Your task to perform on an android device: snooze an email in the gmail app Image 0: 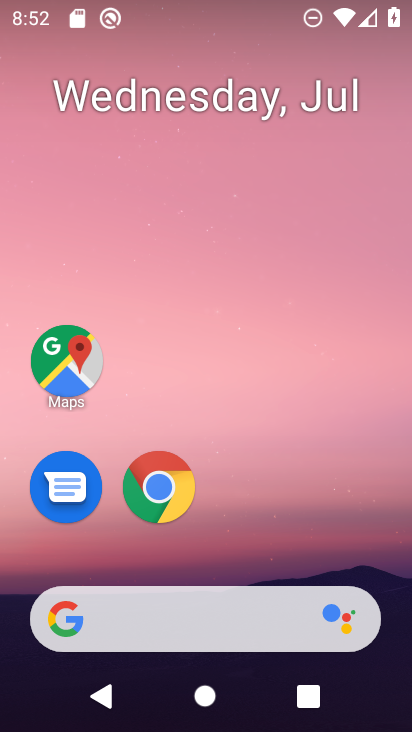
Step 0: drag from (326, 506) to (341, 83)
Your task to perform on an android device: snooze an email in the gmail app Image 1: 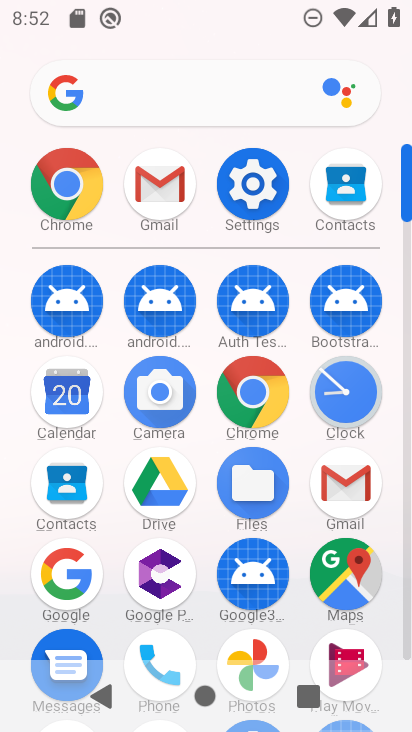
Step 1: click (348, 481)
Your task to perform on an android device: snooze an email in the gmail app Image 2: 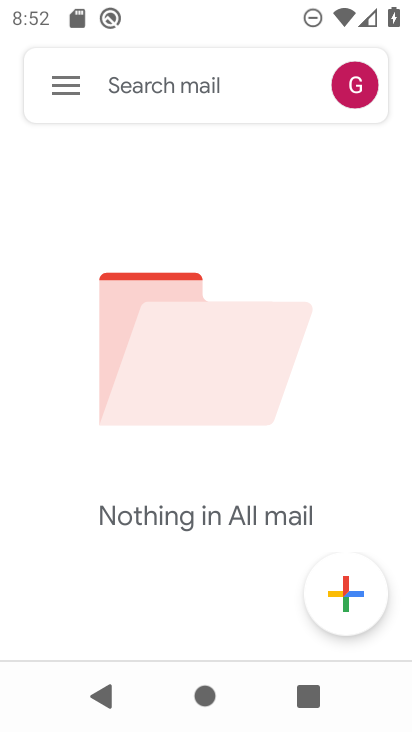
Step 2: click (59, 77)
Your task to perform on an android device: snooze an email in the gmail app Image 3: 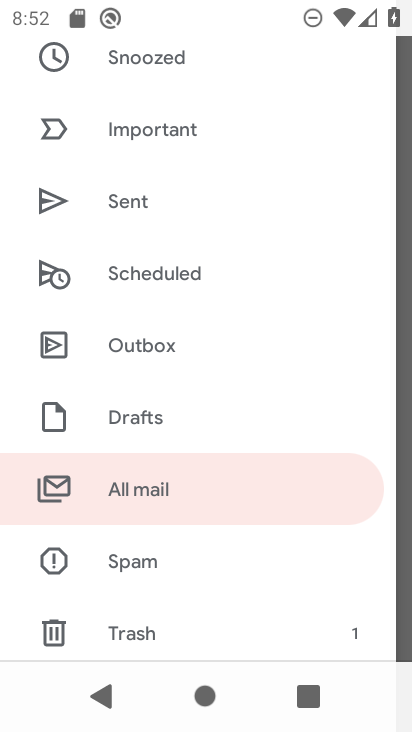
Step 3: click (143, 51)
Your task to perform on an android device: snooze an email in the gmail app Image 4: 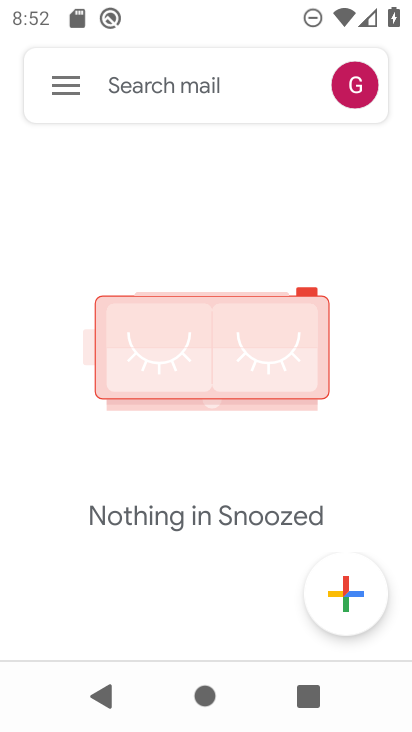
Step 4: task complete